Your task to perform on an android device: clear history in the chrome app Image 0: 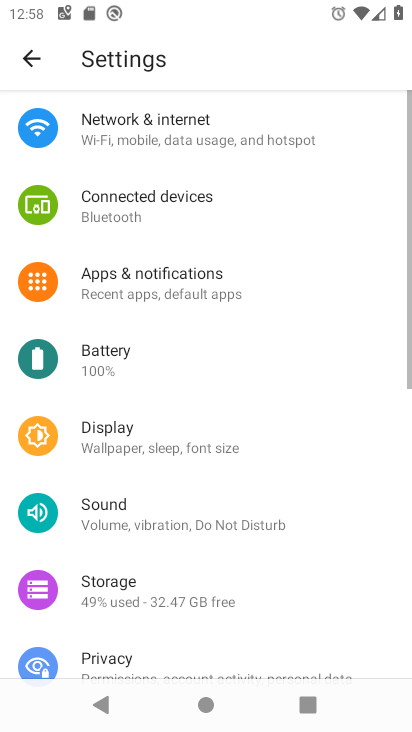
Step 0: press home button
Your task to perform on an android device: clear history in the chrome app Image 1: 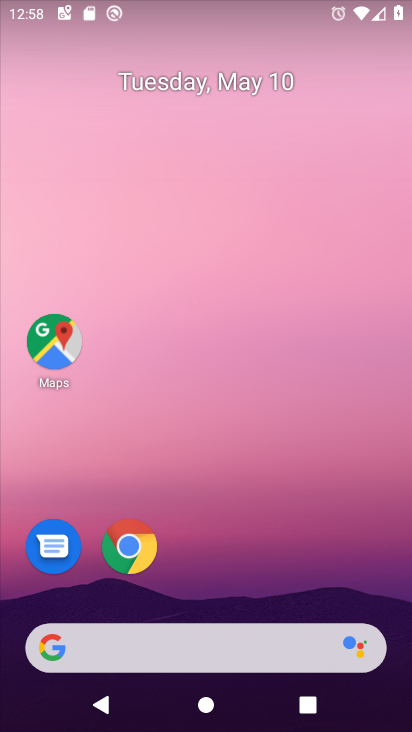
Step 1: click (141, 548)
Your task to perform on an android device: clear history in the chrome app Image 2: 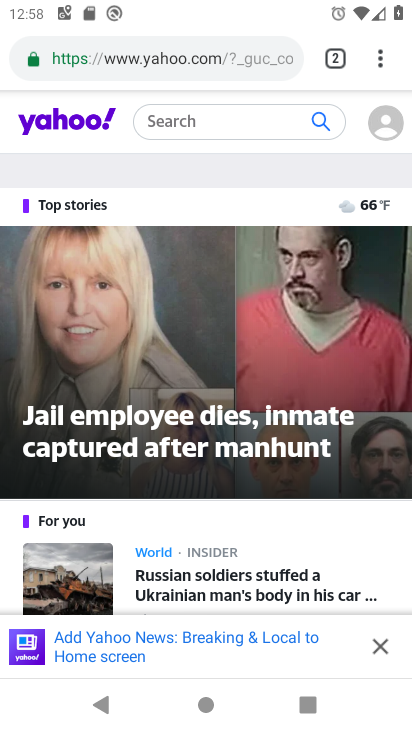
Step 2: drag from (365, 52) to (202, 327)
Your task to perform on an android device: clear history in the chrome app Image 3: 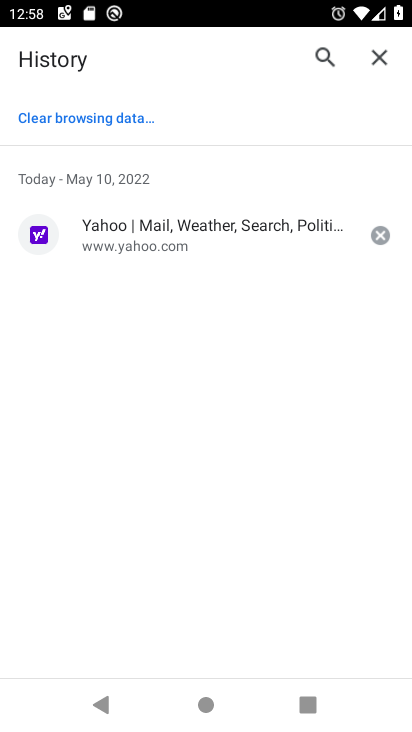
Step 3: click (372, 235)
Your task to perform on an android device: clear history in the chrome app Image 4: 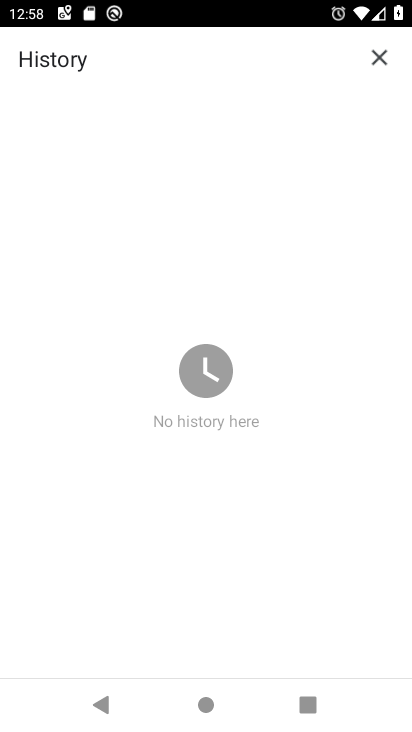
Step 4: task complete